Your task to perform on an android device: turn pop-ups off in chrome Image 0: 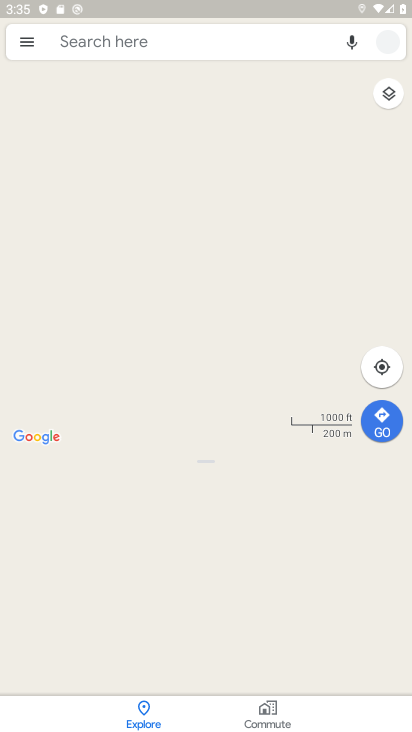
Step 0: press home button
Your task to perform on an android device: turn pop-ups off in chrome Image 1: 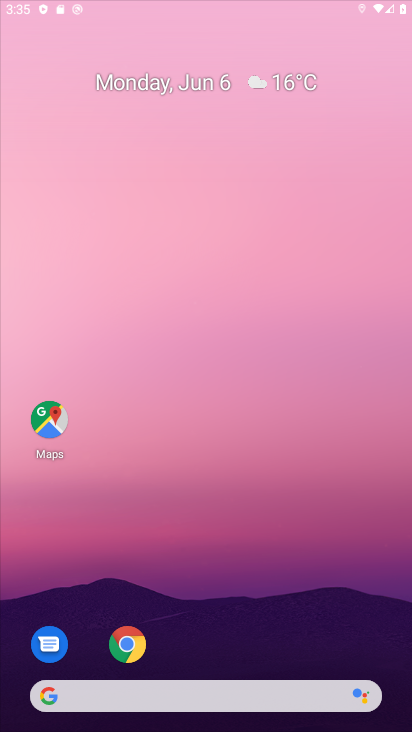
Step 1: click (128, 640)
Your task to perform on an android device: turn pop-ups off in chrome Image 2: 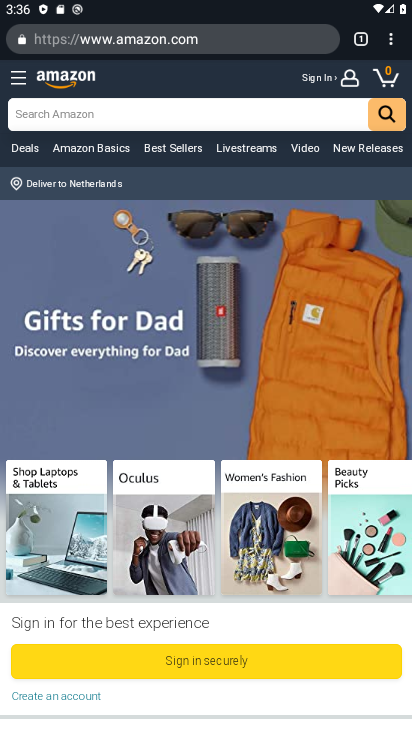
Step 2: click (382, 37)
Your task to perform on an android device: turn pop-ups off in chrome Image 3: 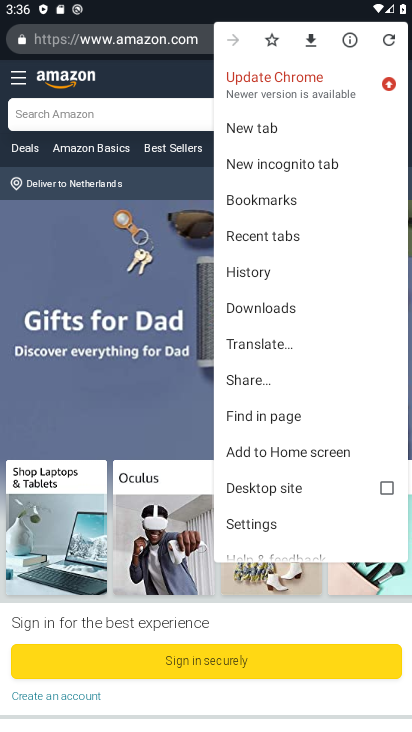
Step 3: click (247, 522)
Your task to perform on an android device: turn pop-ups off in chrome Image 4: 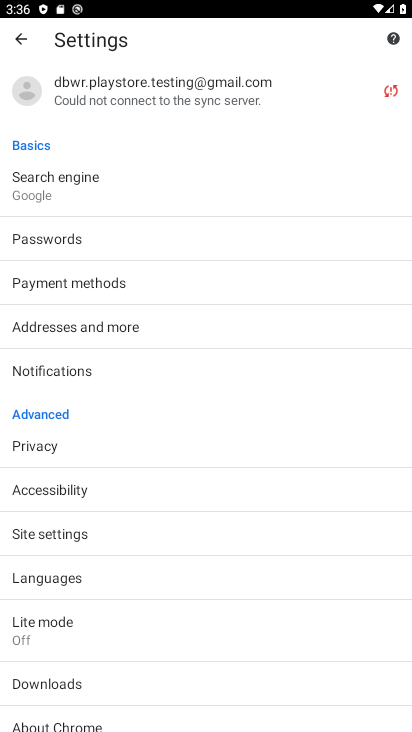
Step 4: click (56, 546)
Your task to perform on an android device: turn pop-ups off in chrome Image 5: 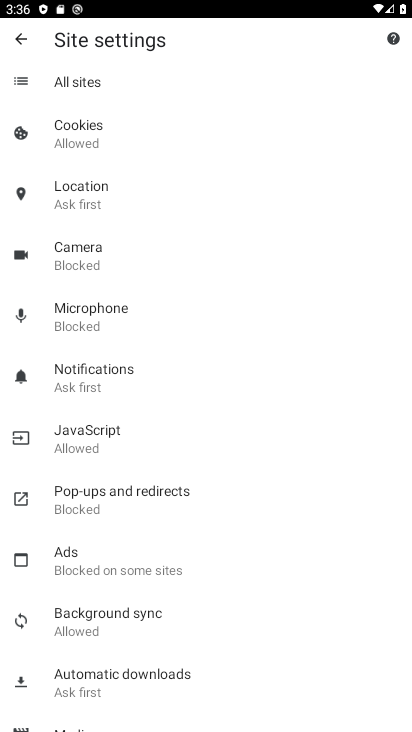
Step 5: click (114, 506)
Your task to perform on an android device: turn pop-ups off in chrome Image 6: 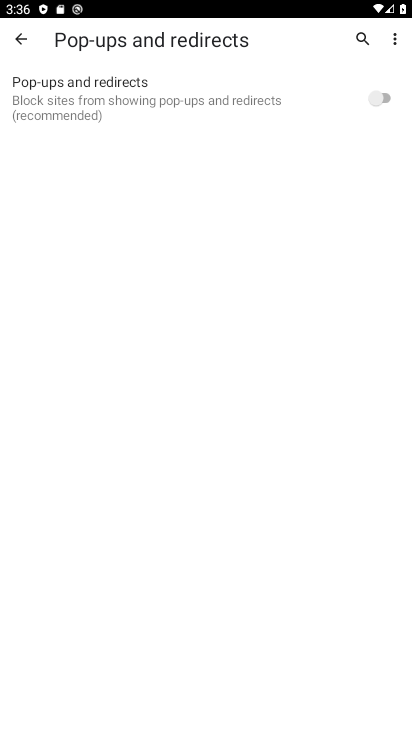
Step 6: task complete